Your task to perform on an android device: Open battery settings Image 0: 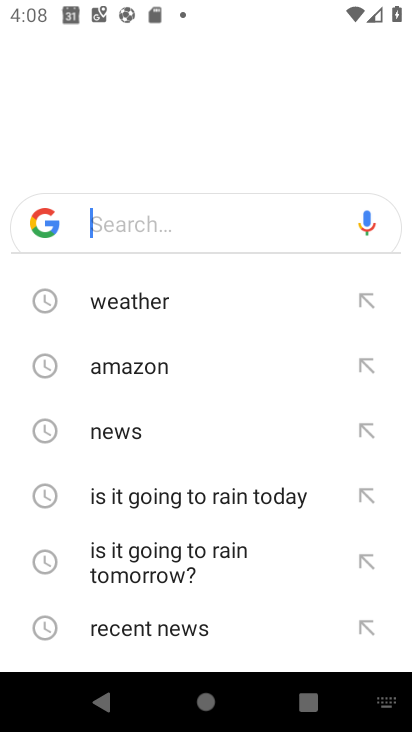
Step 0: press home button
Your task to perform on an android device: Open battery settings Image 1: 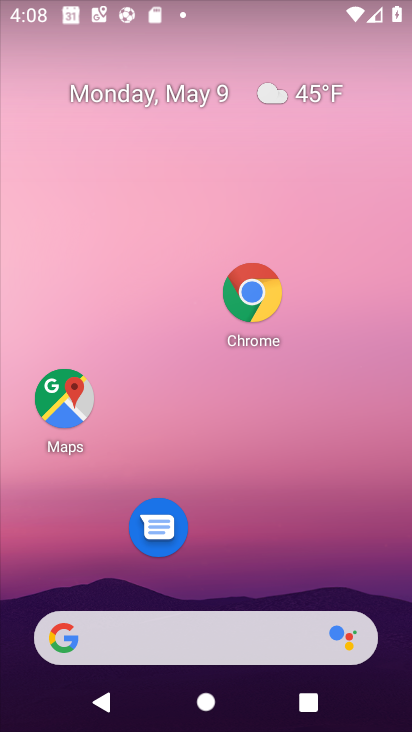
Step 1: drag from (282, 582) to (297, 294)
Your task to perform on an android device: Open battery settings Image 2: 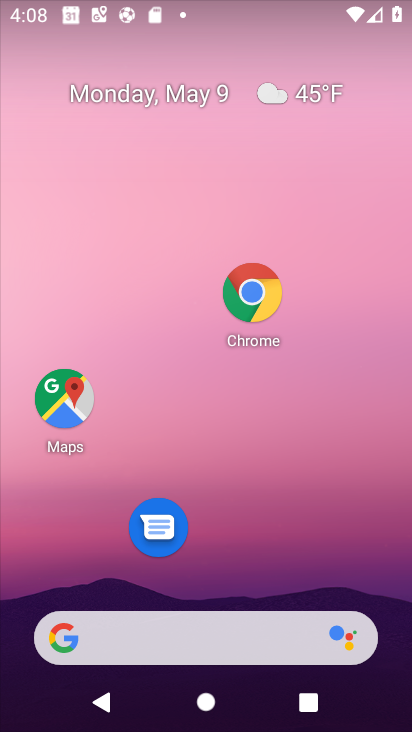
Step 2: drag from (280, 384) to (289, 110)
Your task to perform on an android device: Open battery settings Image 3: 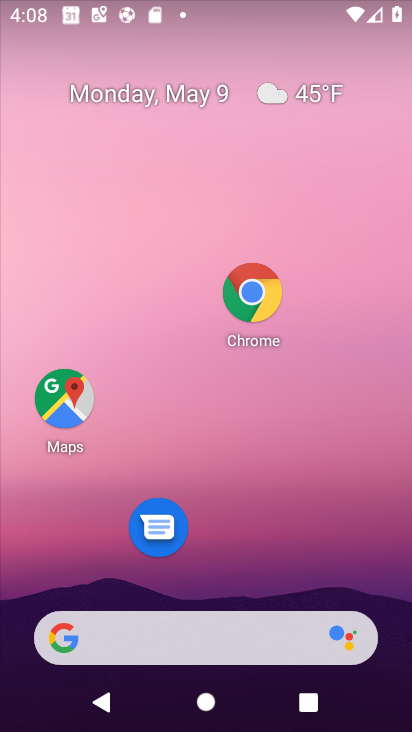
Step 3: drag from (152, 574) to (134, 351)
Your task to perform on an android device: Open battery settings Image 4: 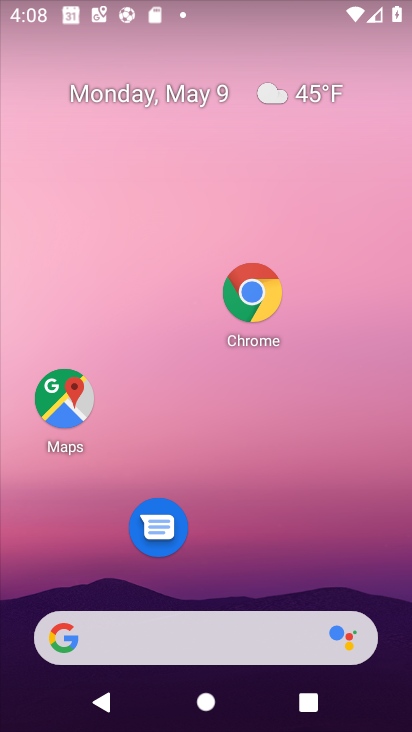
Step 4: drag from (182, 593) to (216, 182)
Your task to perform on an android device: Open battery settings Image 5: 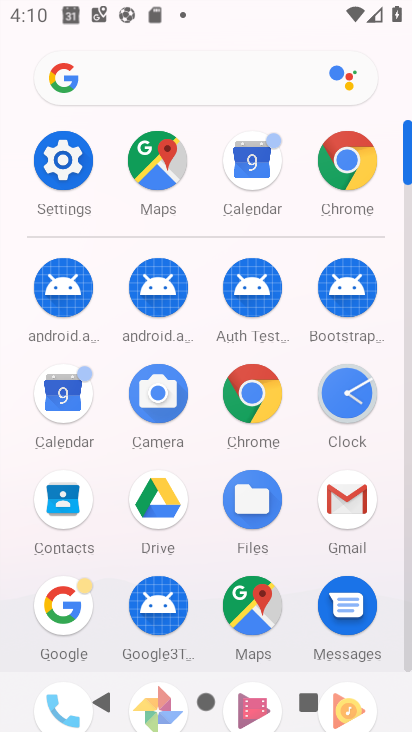
Step 5: click (71, 167)
Your task to perform on an android device: Open battery settings Image 6: 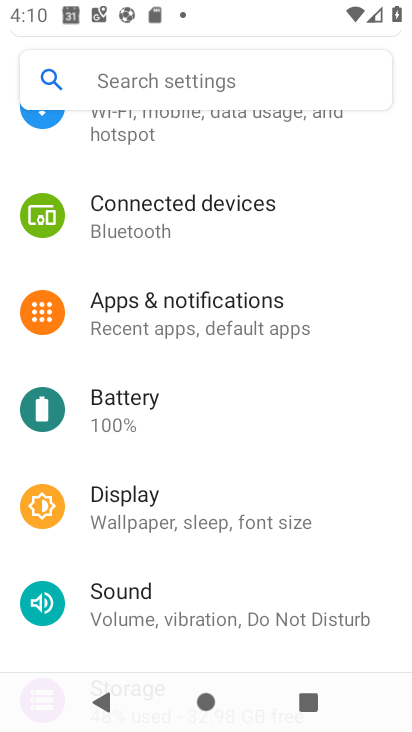
Step 6: click (149, 433)
Your task to perform on an android device: Open battery settings Image 7: 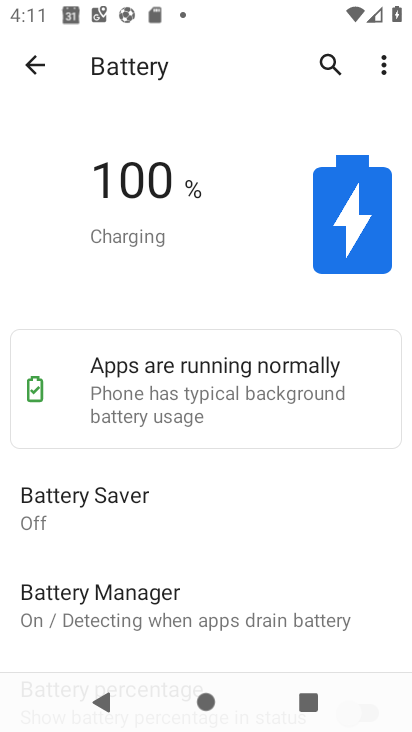
Step 7: task complete